Your task to perform on an android device: check android version Image 0: 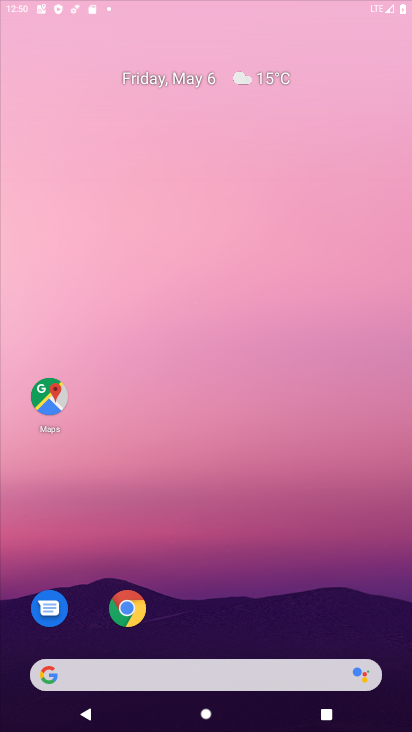
Step 0: drag from (219, 602) to (219, 379)
Your task to perform on an android device: check android version Image 1: 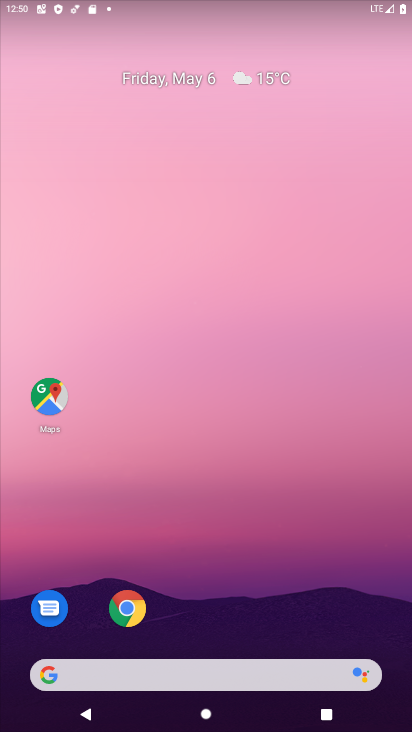
Step 1: drag from (229, 594) to (219, 225)
Your task to perform on an android device: check android version Image 2: 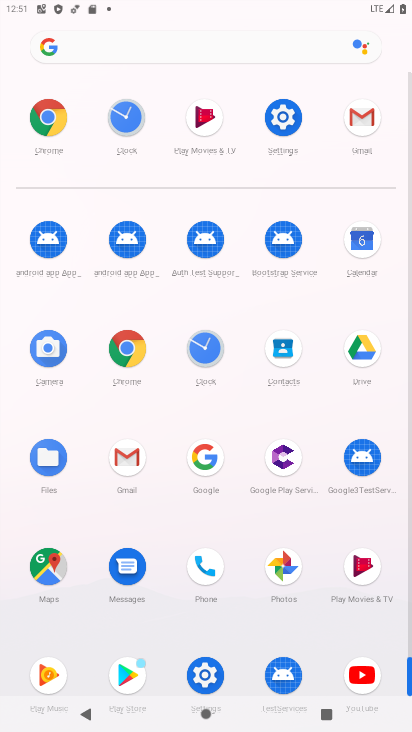
Step 2: click (202, 687)
Your task to perform on an android device: check android version Image 3: 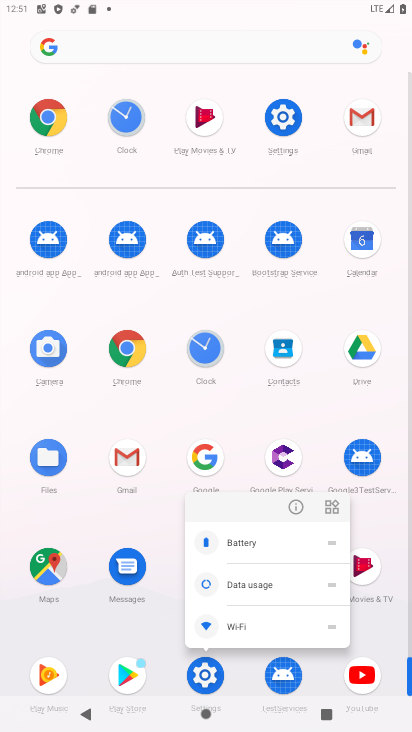
Step 3: click (293, 510)
Your task to perform on an android device: check android version Image 4: 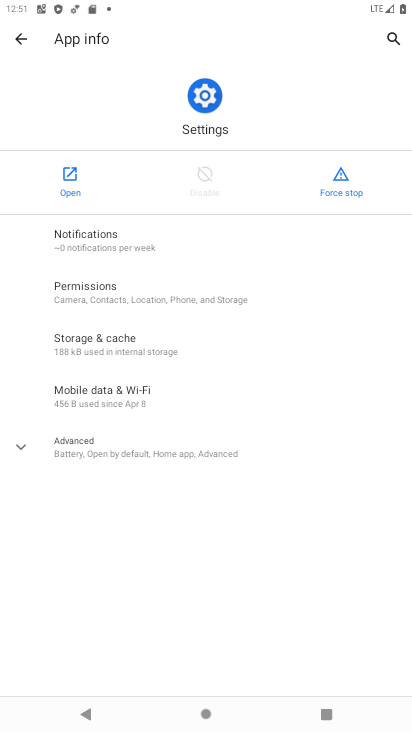
Step 4: click (58, 178)
Your task to perform on an android device: check android version Image 5: 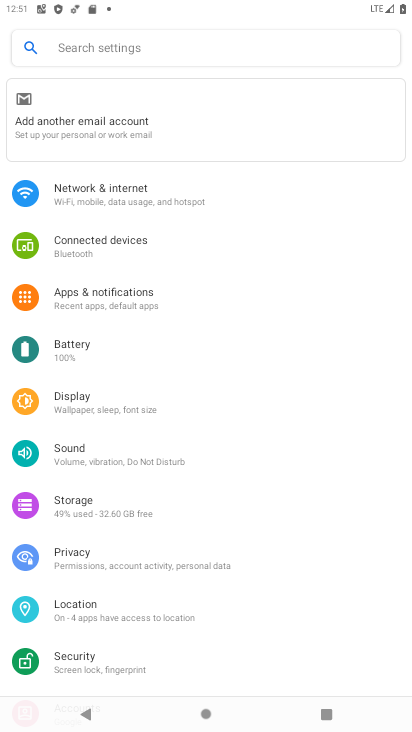
Step 5: drag from (204, 628) to (229, 181)
Your task to perform on an android device: check android version Image 6: 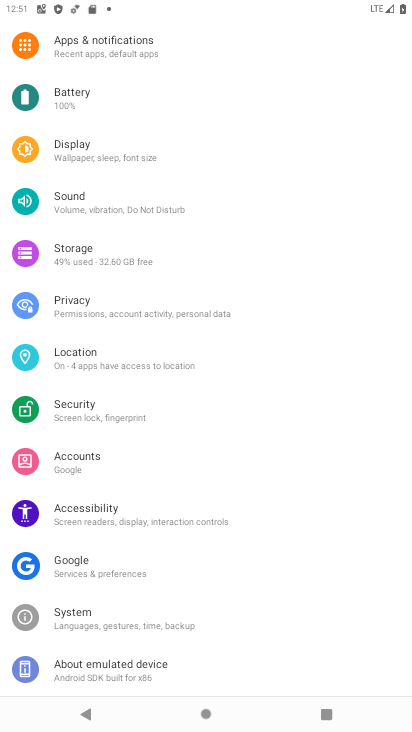
Step 6: click (148, 679)
Your task to perform on an android device: check android version Image 7: 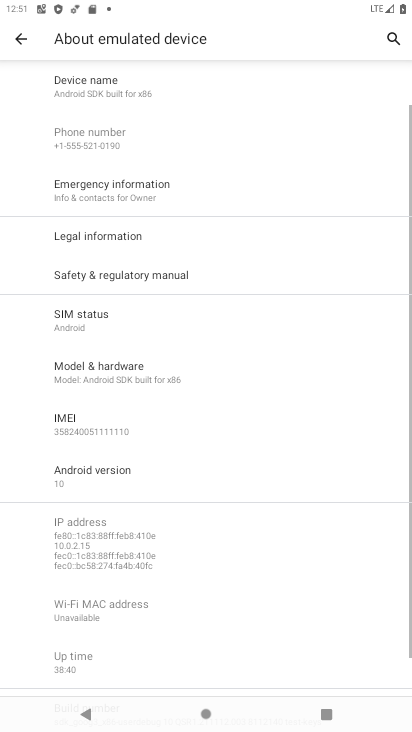
Step 7: click (141, 464)
Your task to perform on an android device: check android version Image 8: 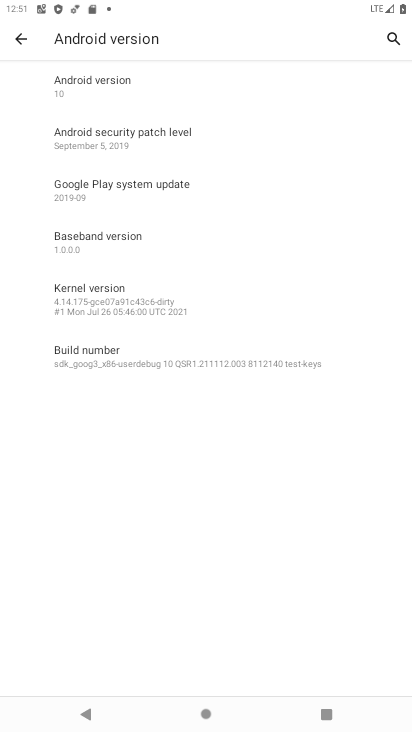
Step 8: click (165, 76)
Your task to perform on an android device: check android version Image 9: 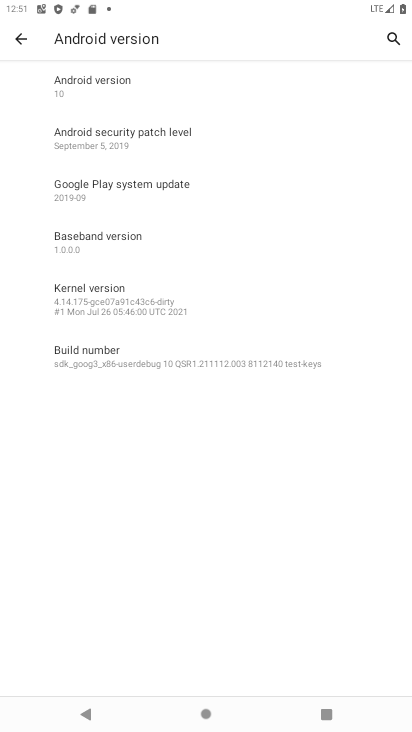
Step 9: task complete